Your task to perform on an android device: Open the stopwatch Image 0: 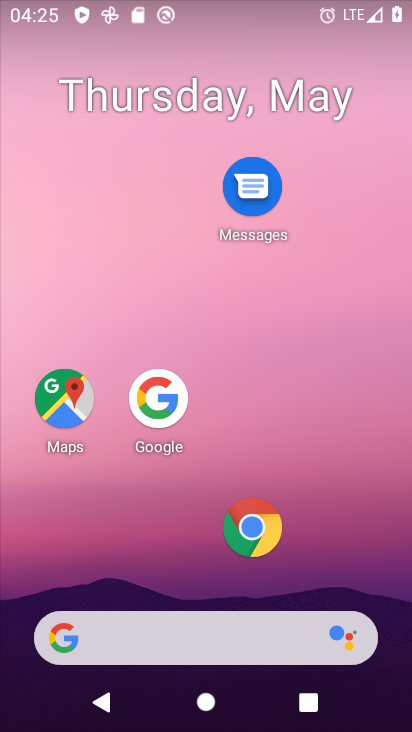
Step 0: drag from (194, 325) to (220, 153)
Your task to perform on an android device: Open the stopwatch Image 1: 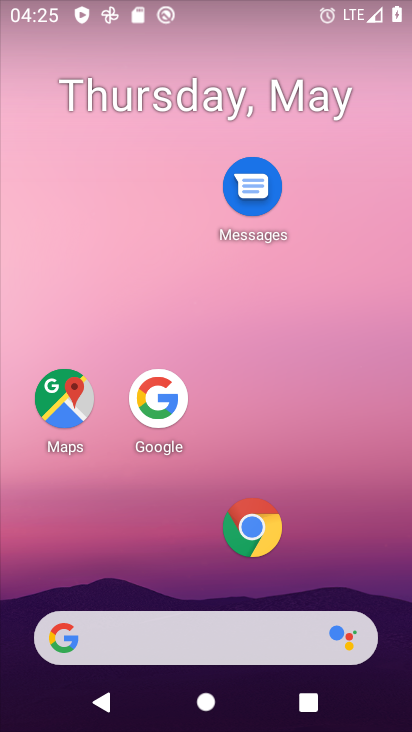
Step 1: drag from (197, 553) to (200, 51)
Your task to perform on an android device: Open the stopwatch Image 2: 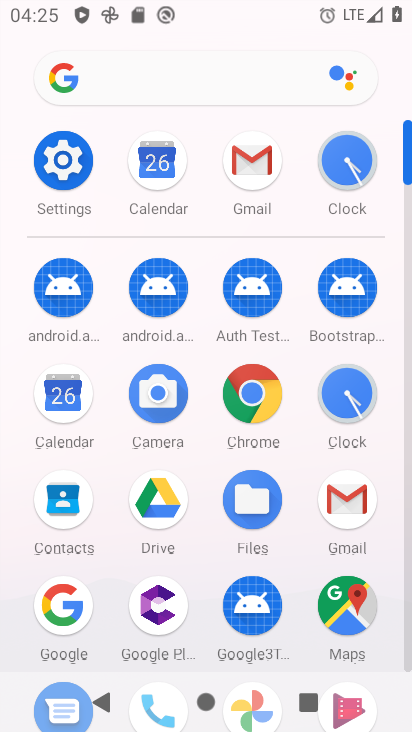
Step 2: click (357, 385)
Your task to perform on an android device: Open the stopwatch Image 3: 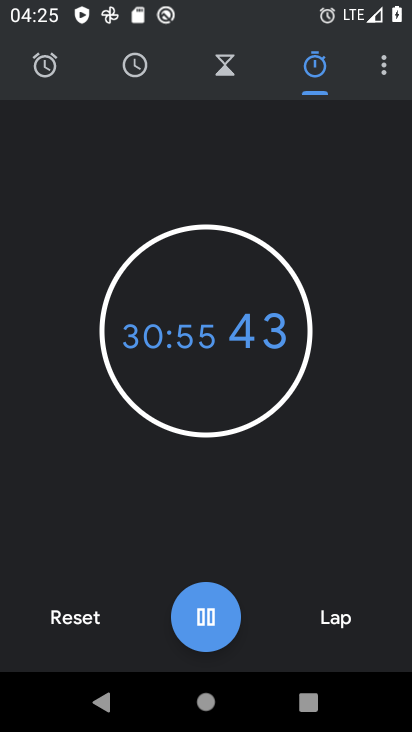
Step 3: click (91, 647)
Your task to perform on an android device: Open the stopwatch Image 4: 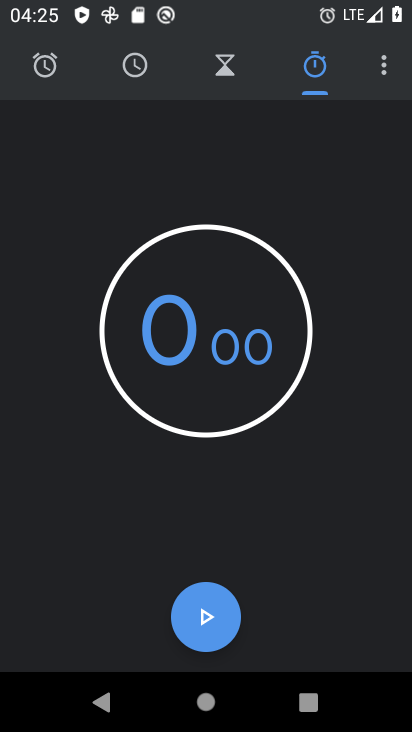
Step 4: click (204, 600)
Your task to perform on an android device: Open the stopwatch Image 5: 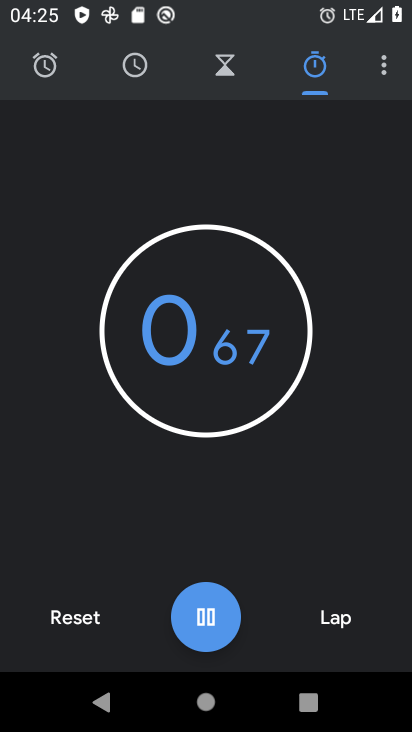
Step 5: task complete